Your task to perform on an android device: What is the recent news? Image 0: 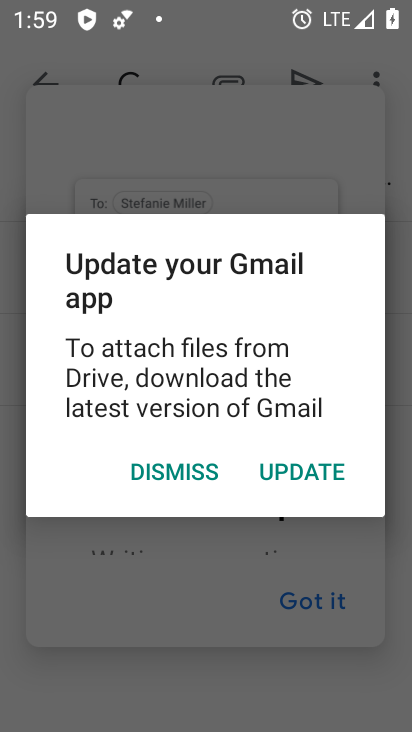
Step 0: press home button
Your task to perform on an android device: What is the recent news? Image 1: 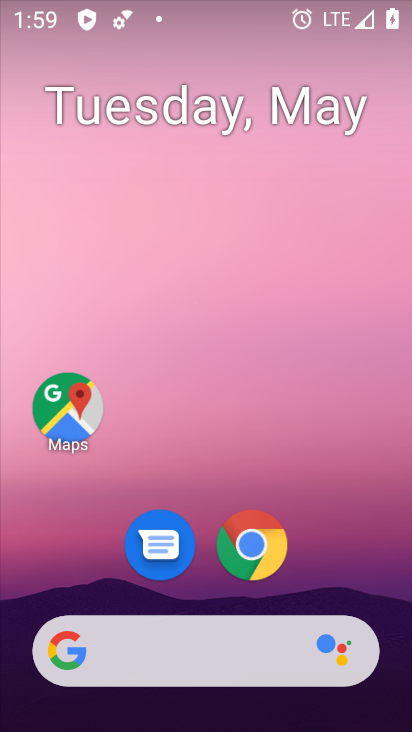
Step 1: drag from (379, 545) to (170, 14)
Your task to perform on an android device: What is the recent news? Image 2: 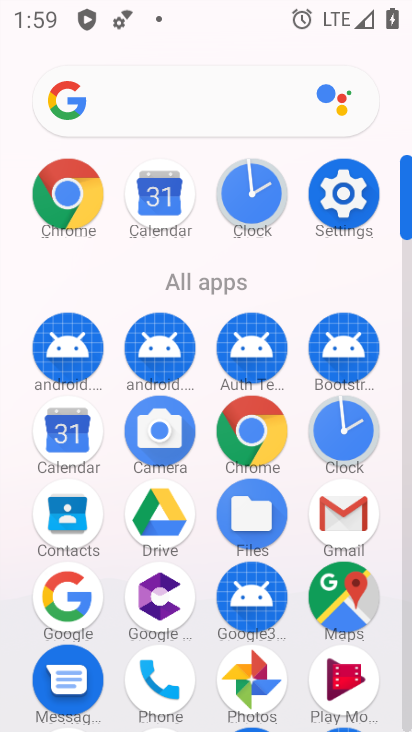
Step 2: drag from (0, 590) to (8, 258)
Your task to perform on an android device: What is the recent news? Image 3: 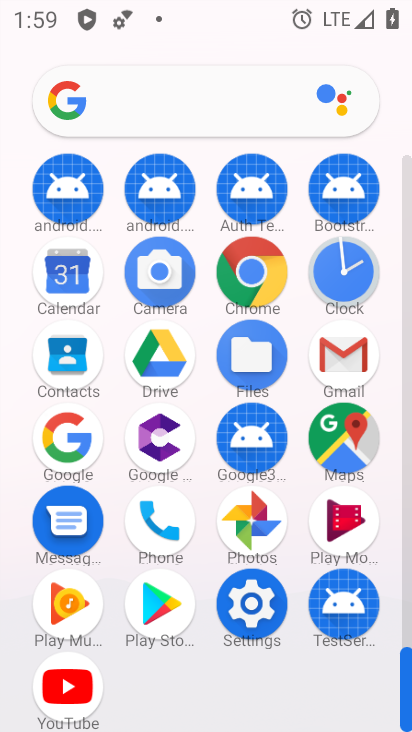
Step 3: click (254, 270)
Your task to perform on an android device: What is the recent news? Image 4: 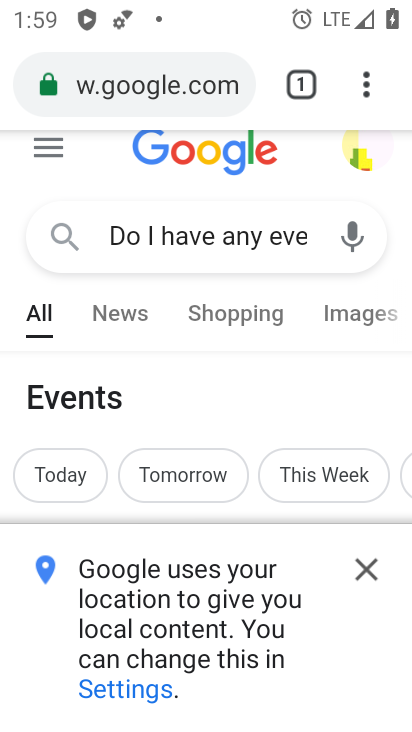
Step 4: click (146, 89)
Your task to perform on an android device: What is the recent news? Image 5: 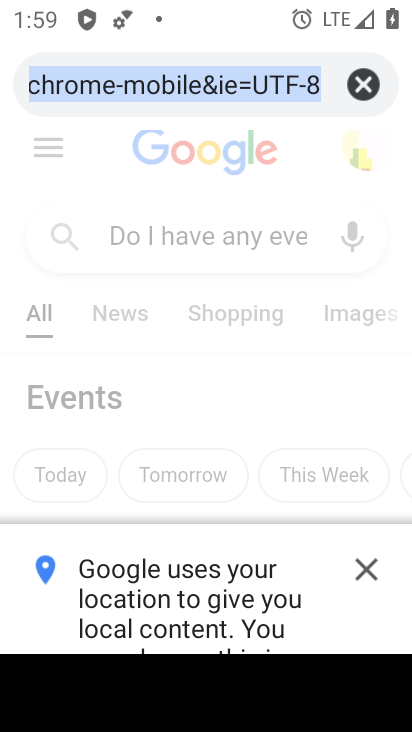
Step 5: click (358, 83)
Your task to perform on an android device: What is the recent news? Image 6: 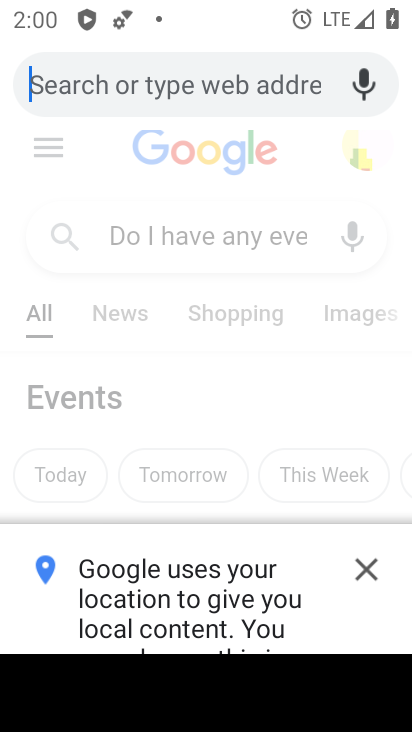
Step 6: type "What is the recent news?"
Your task to perform on an android device: What is the recent news? Image 7: 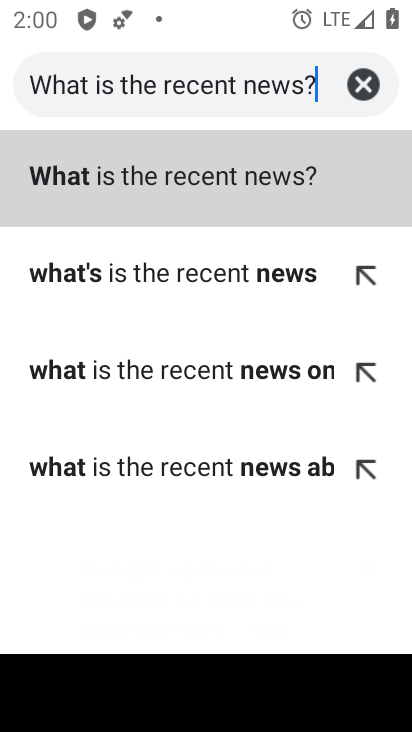
Step 7: click (210, 151)
Your task to perform on an android device: What is the recent news? Image 8: 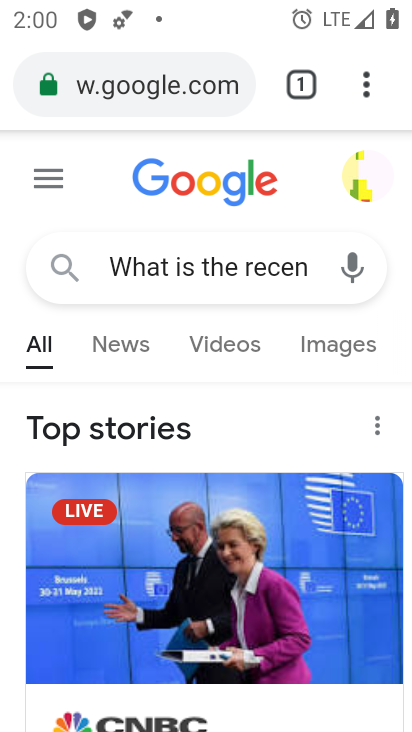
Step 8: task complete